Your task to perform on an android device: read, delete, or share a saved page in the chrome app Image 0: 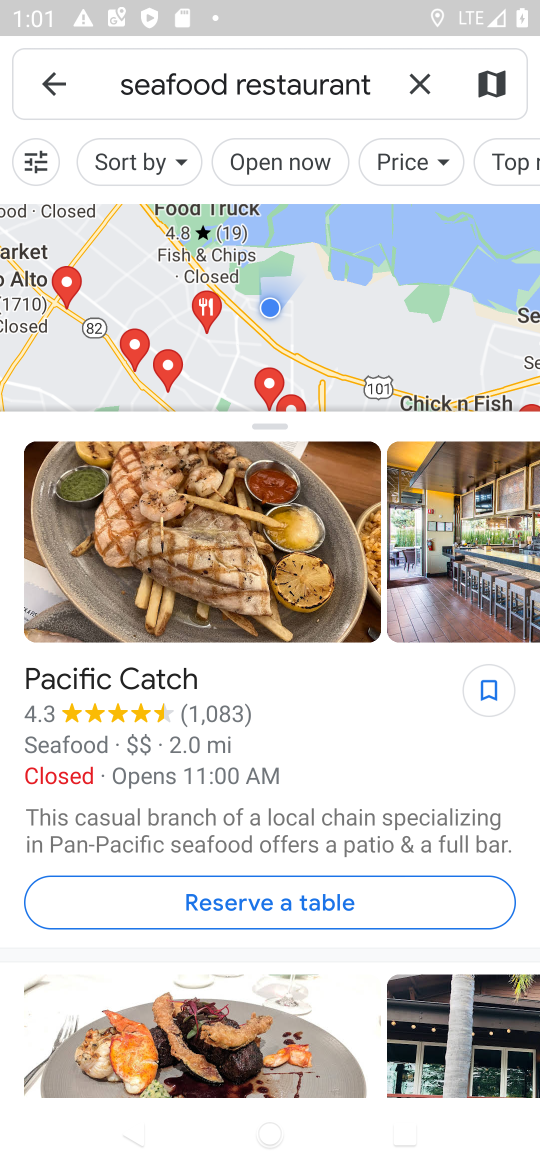
Step 0: press home button
Your task to perform on an android device: read, delete, or share a saved page in the chrome app Image 1: 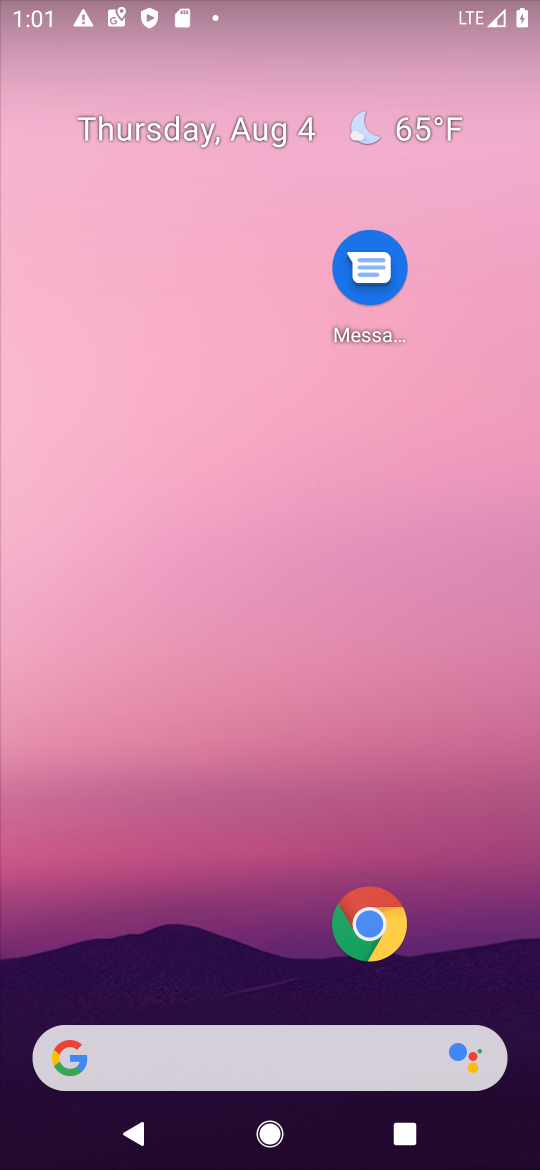
Step 1: click (383, 929)
Your task to perform on an android device: read, delete, or share a saved page in the chrome app Image 2: 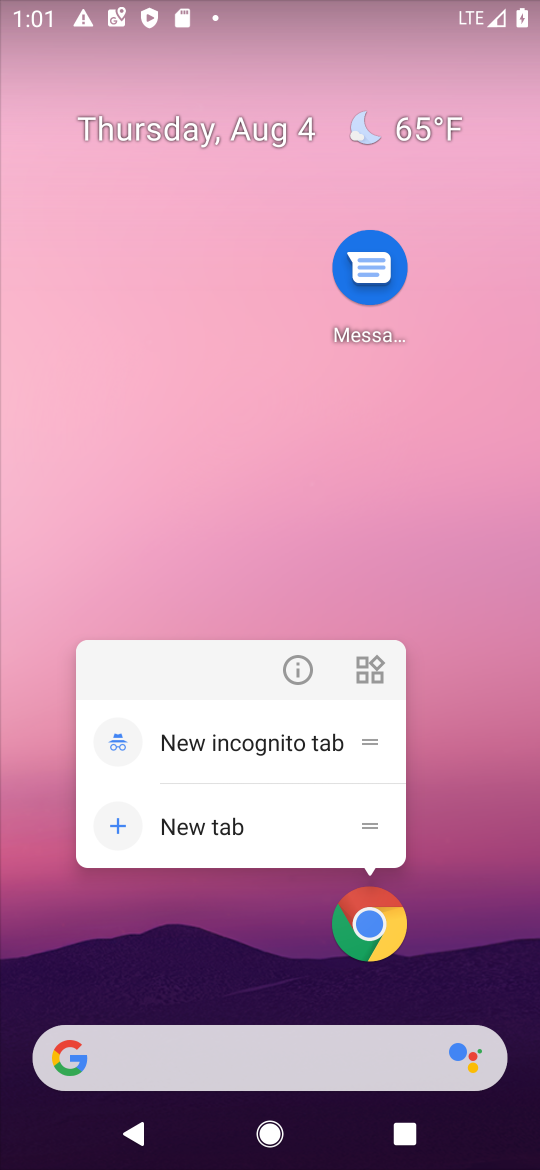
Step 2: click (361, 935)
Your task to perform on an android device: read, delete, or share a saved page in the chrome app Image 3: 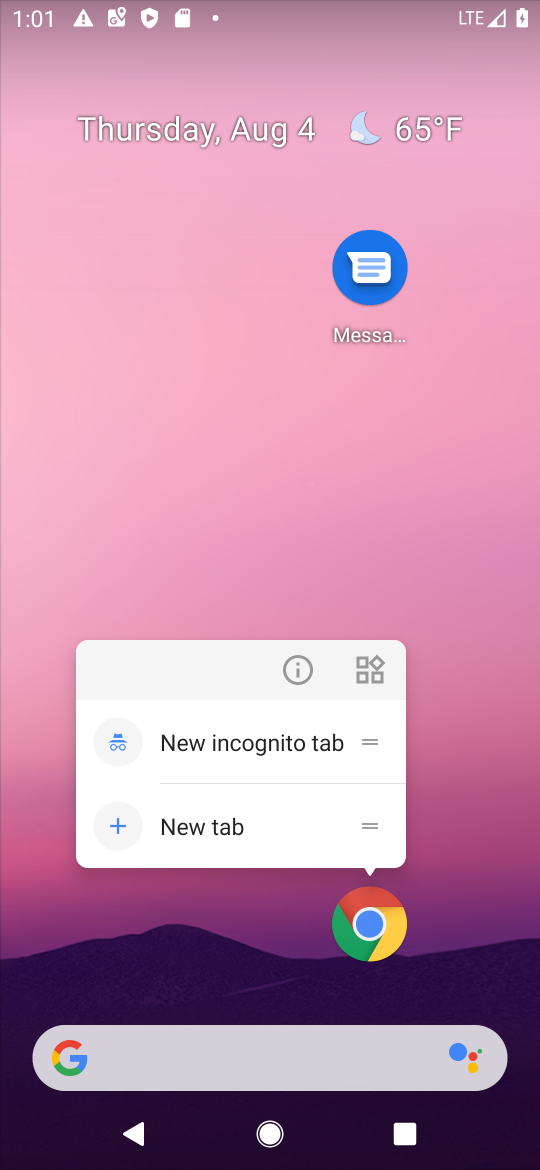
Step 3: click (353, 958)
Your task to perform on an android device: read, delete, or share a saved page in the chrome app Image 4: 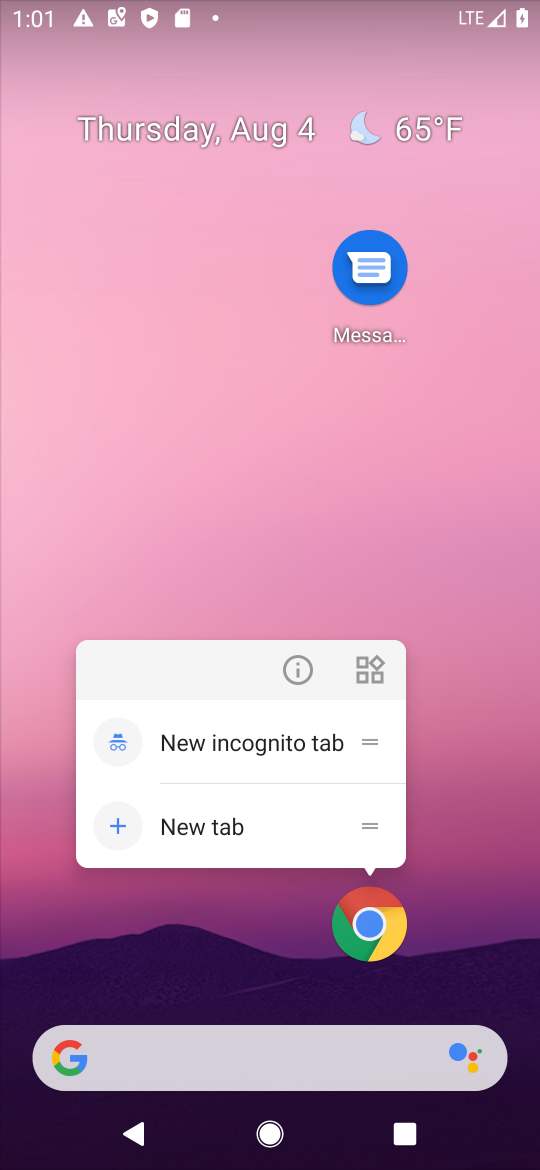
Step 4: task complete